Your task to perform on an android device: Open Google Image 0: 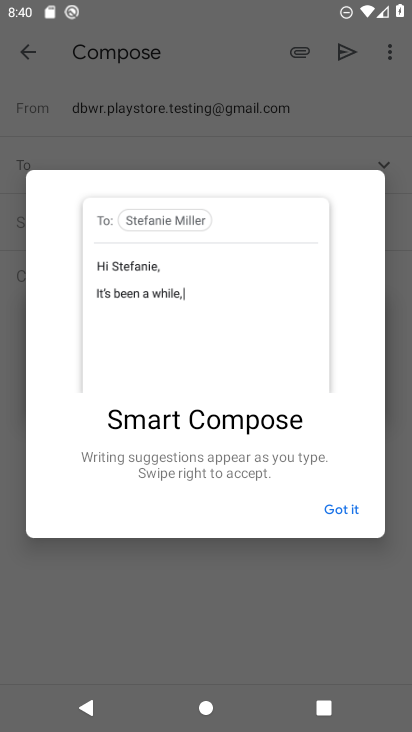
Step 0: press home button
Your task to perform on an android device: Open Google Image 1: 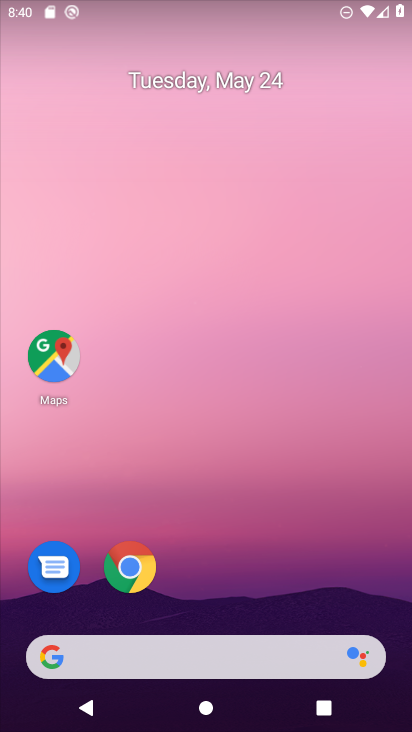
Step 1: drag from (152, 656) to (305, 194)
Your task to perform on an android device: Open Google Image 2: 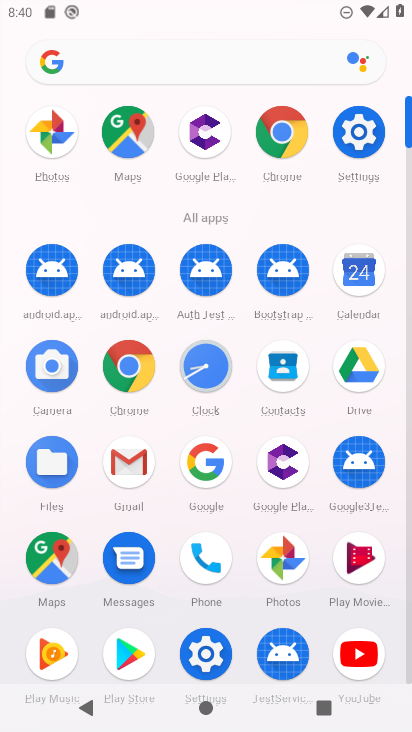
Step 2: click (214, 472)
Your task to perform on an android device: Open Google Image 3: 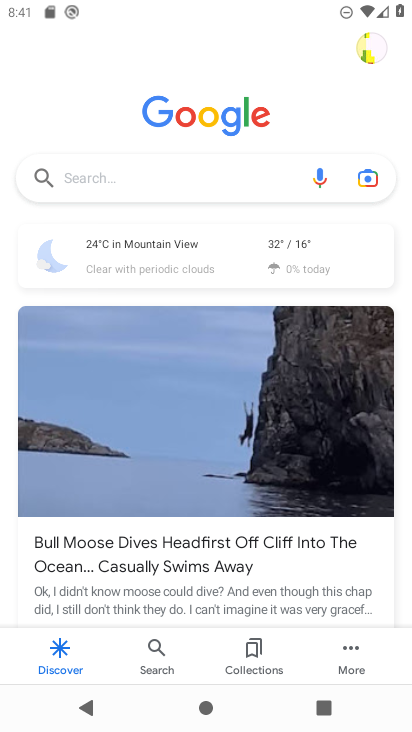
Step 3: task complete